Your task to perform on an android device: turn smart compose on in the gmail app Image 0: 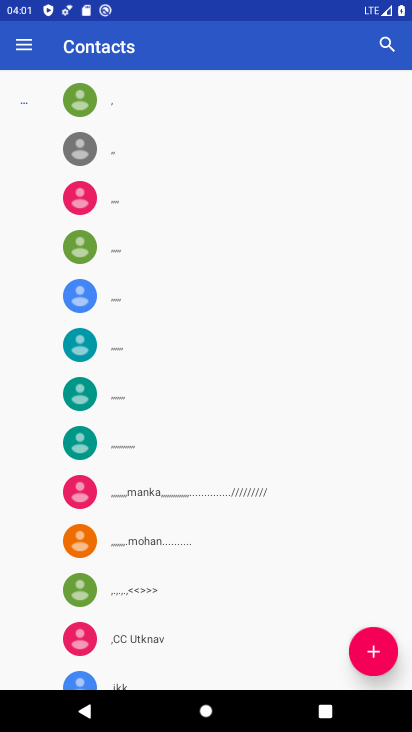
Step 0: drag from (189, 593) to (230, 216)
Your task to perform on an android device: turn smart compose on in the gmail app Image 1: 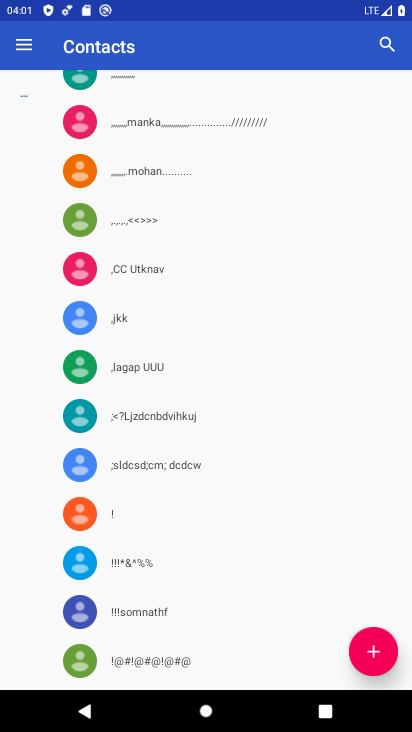
Step 1: press home button
Your task to perform on an android device: turn smart compose on in the gmail app Image 2: 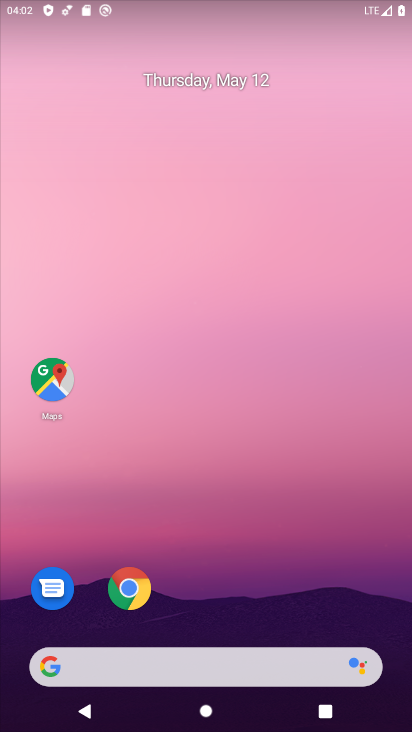
Step 2: drag from (199, 557) to (289, 96)
Your task to perform on an android device: turn smart compose on in the gmail app Image 3: 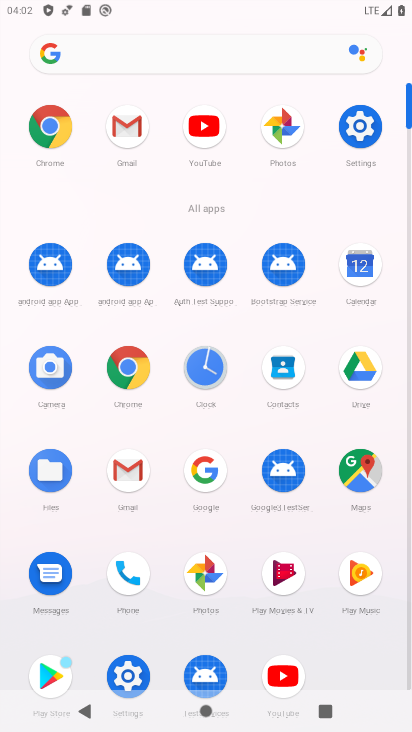
Step 3: click (123, 463)
Your task to perform on an android device: turn smart compose on in the gmail app Image 4: 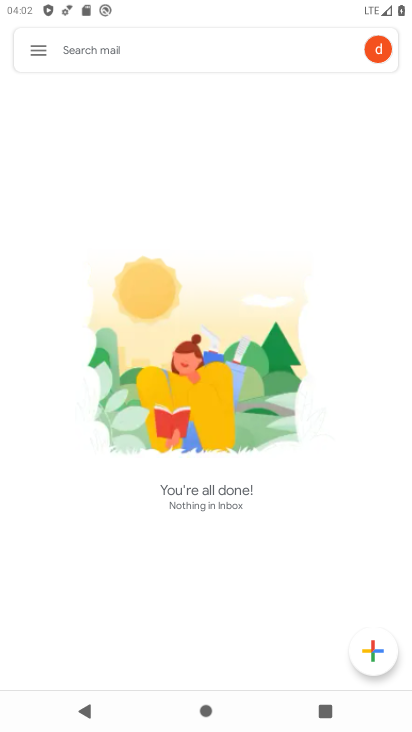
Step 4: click (20, 45)
Your task to perform on an android device: turn smart compose on in the gmail app Image 5: 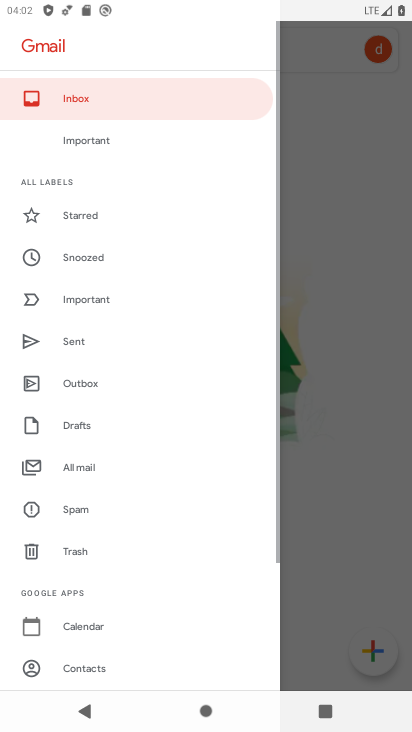
Step 5: drag from (151, 555) to (174, 129)
Your task to perform on an android device: turn smart compose on in the gmail app Image 6: 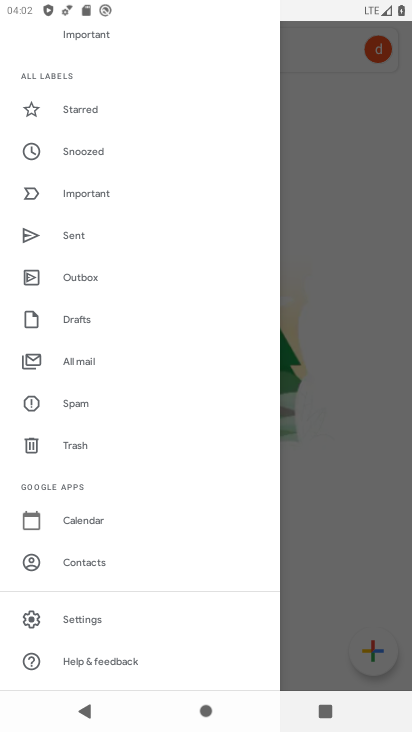
Step 6: click (91, 622)
Your task to perform on an android device: turn smart compose on in the gmail app Image 7: 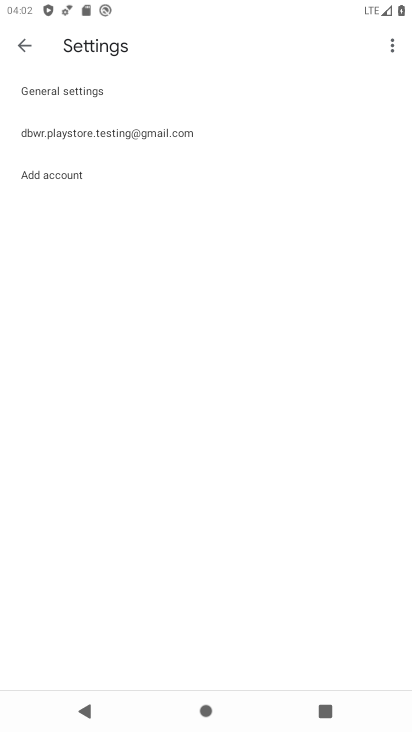
Step 7: click (169, 135)
Your task to perform on an android device: turn smart compose on in the gmail app Image 8: 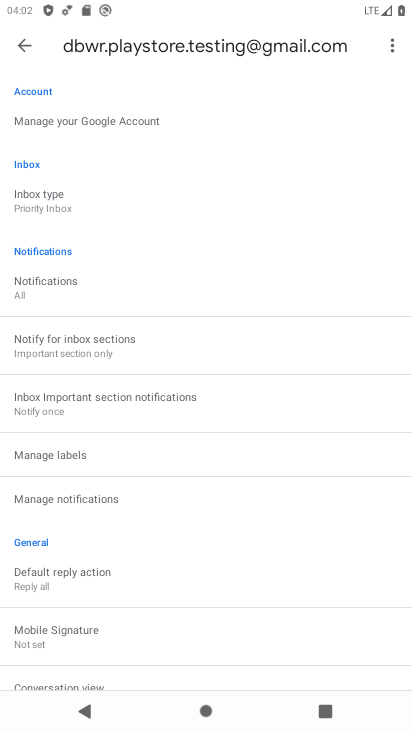
Step 8: task complete